Your task to perform on an android device: read, delete, or share a saved page in the chrome app Image 0: 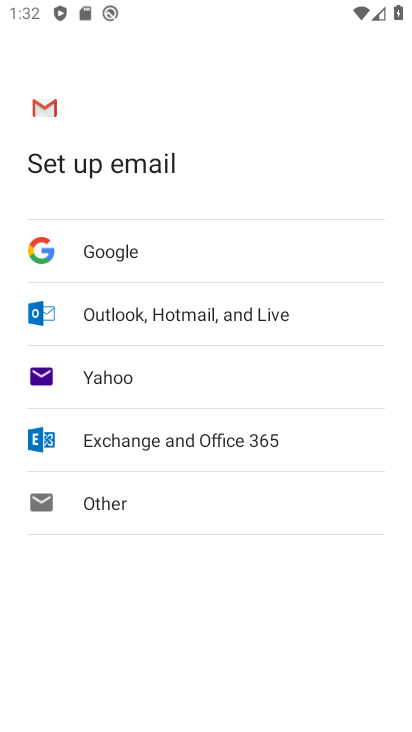
Step 0: press home button
Your task to perform on an android device: read, delete, or share a saved page in the chrome app Image 1: 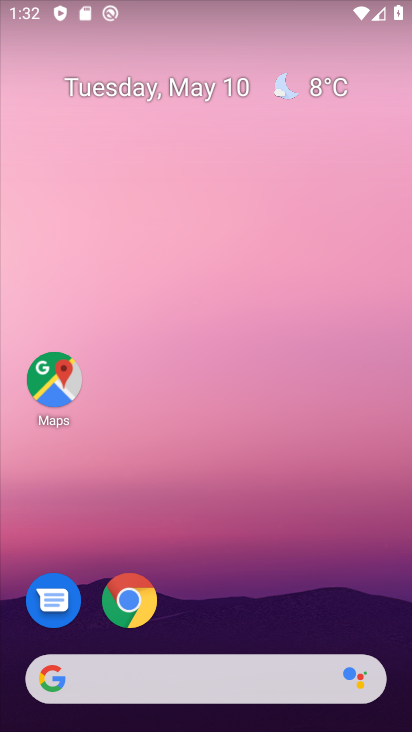
Step 1: click (123, 591)
Your task to perform on an android device: read, delete, or share a saved page in the chrome app Image 2: 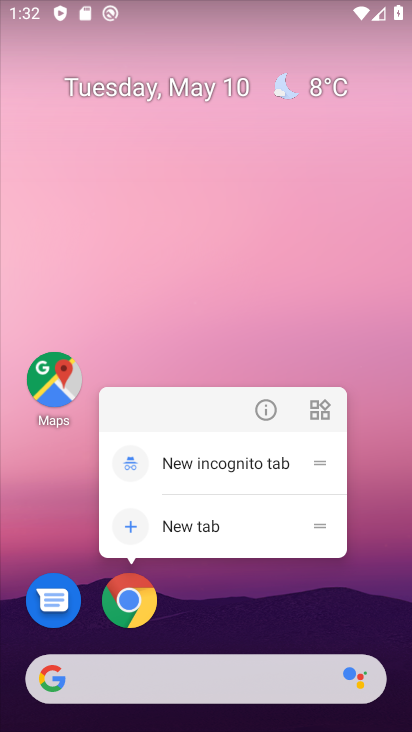
Step 2: click (245, 627)
Your task to perform on an android device: read, delete, or share a saved page in the chrome app Image 3: 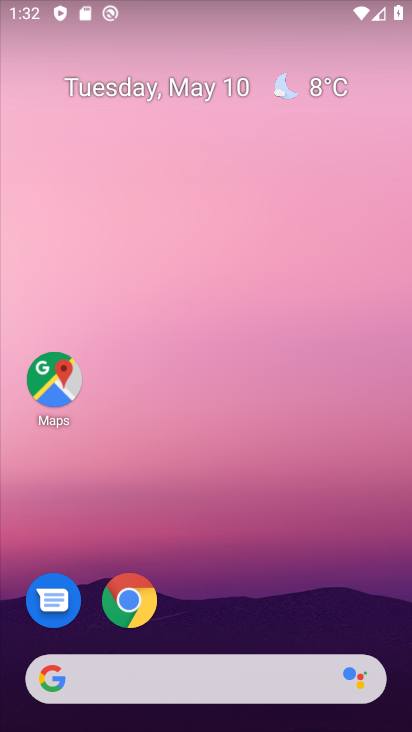
Step 3: click (124, 593)
Your task to perform on an android device: read, delete, or share a saved page in the chrome app Image 4: 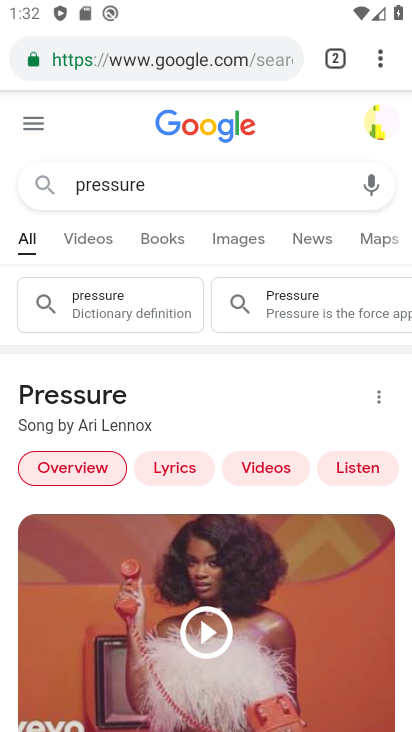
Step 4: click (379, 51)
Your task to perform on an android device: read, delete, or share a saved page in the chrome app Image 5: 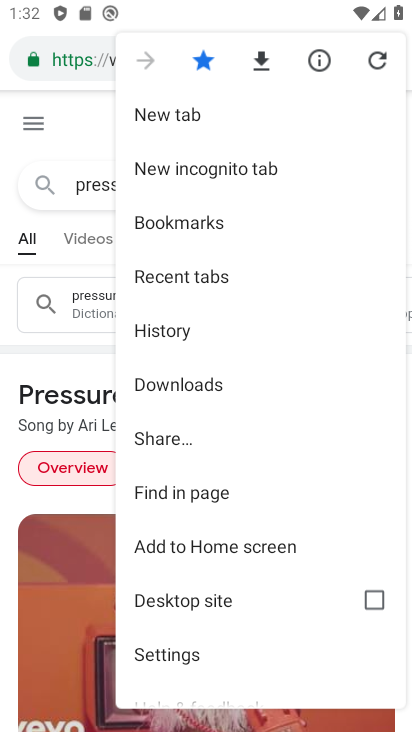
Step 5: click (229, 380)
Your task to perform on an android device: read, delete, or share a saved page in the chrome app Image 6: 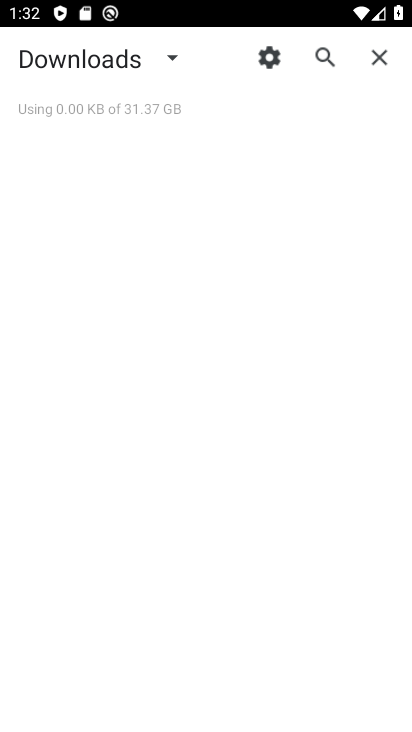
Step 6: task complete